Your task to perform on an android device: Do I have any events today? Image 0: 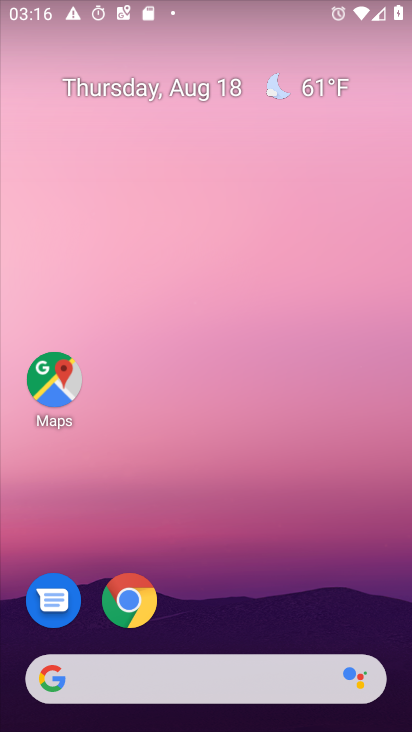
Step 0: press home button
Your task to perform on an android device: Do I have any events today? Image 1: 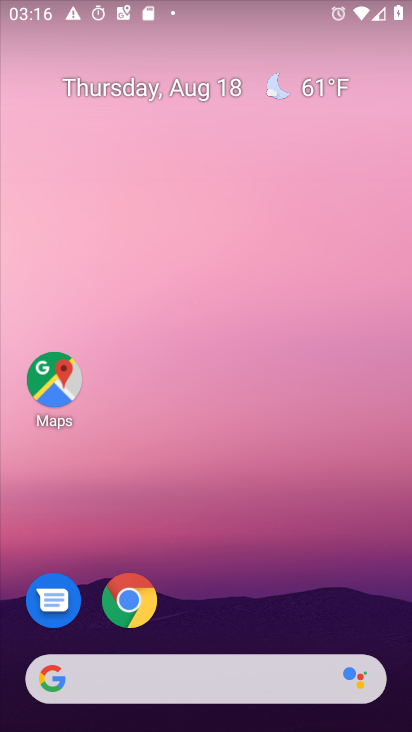
Step 1: drag from (258, 622) to (233, 53)
Your task to perform on an android device: Do I have any events today? Image 2: 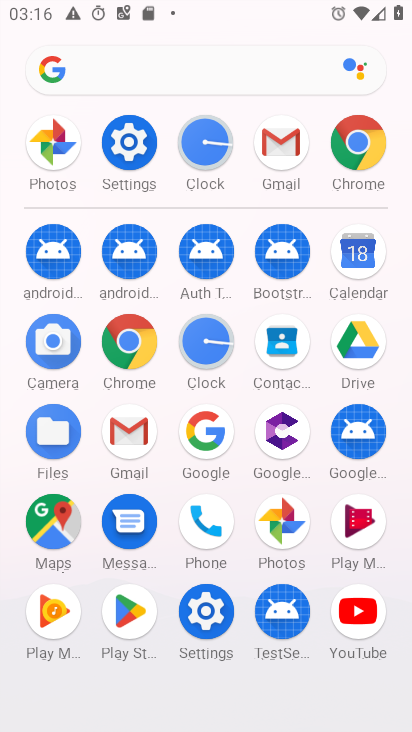
Step 2: click (352, 265)
Your task to perform on an android device: Do I have any events today? Image 3: 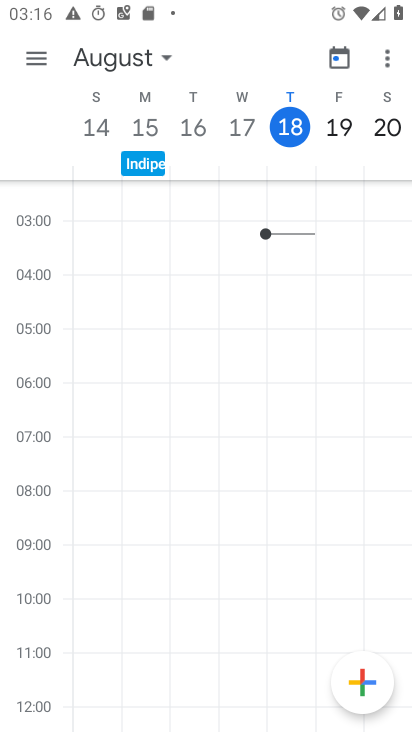
Step 3: click (155, 55)
Your task to perform on an android device: Do I have any events today? Image 4: 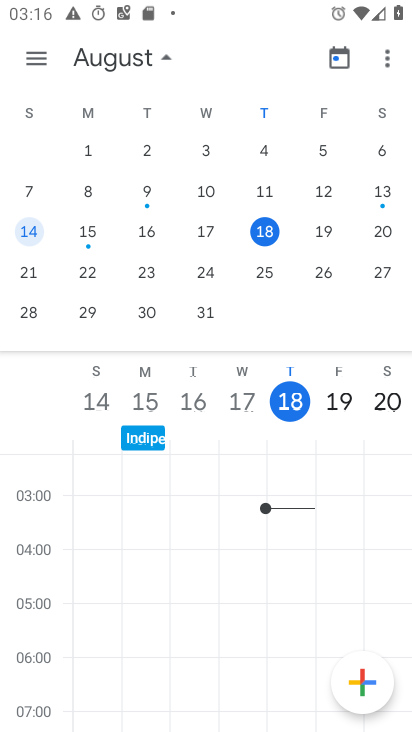
Step 4: click (255, 235)
Your task to perform on an android device: Do I have any events today? Image 5: 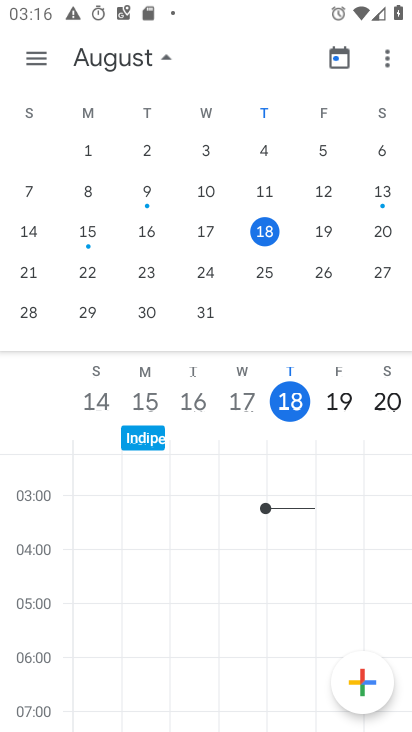
Step 5: click (260, 232)
Your task to perform on an android device: Do I have any events today? Image 6: 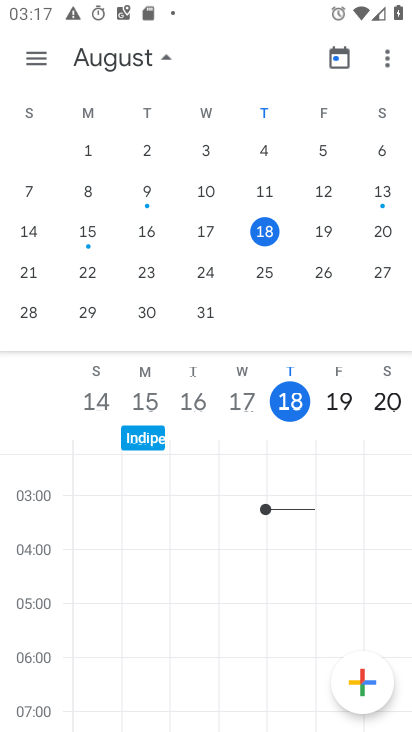
Step 6: task complete